Your task to perform on an android device: move a message to another label in the gmail app Image 0: 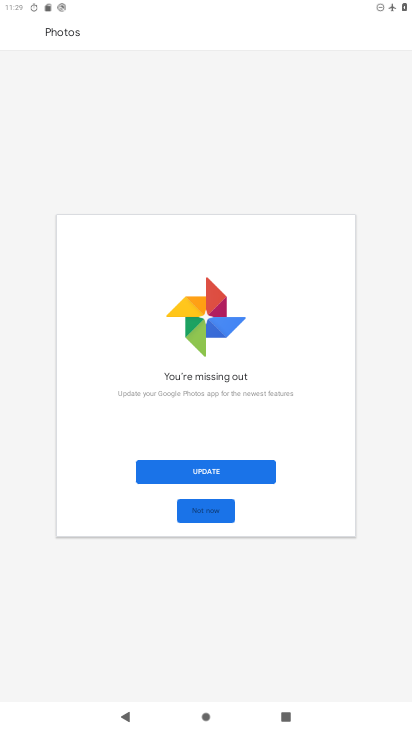
Step 0: press home button
Your task to perform on an android device: move a message to another label in the gmail app Image 1: 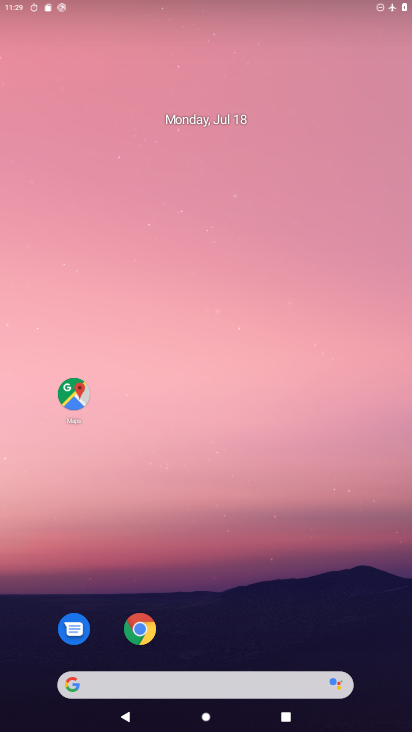
Step 1: drag from (352, 627) to (218, 112)
Your task to perform on an android device: move a message to another label in the gmail app Image 2: 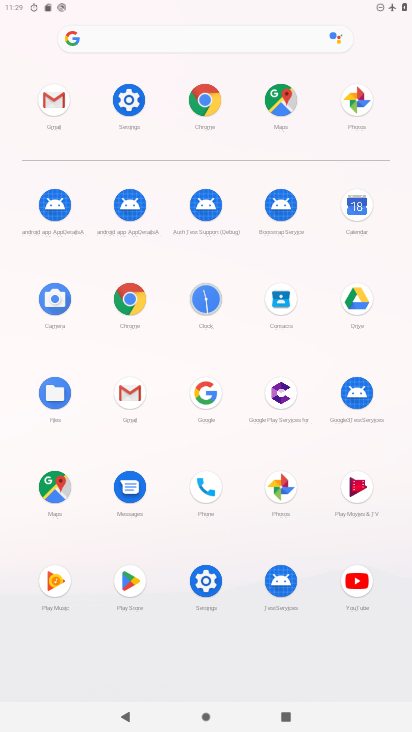
Step 2: click (128, 397)
Your task to perform on an android device: move a message to another label in the gmail app Image 3: 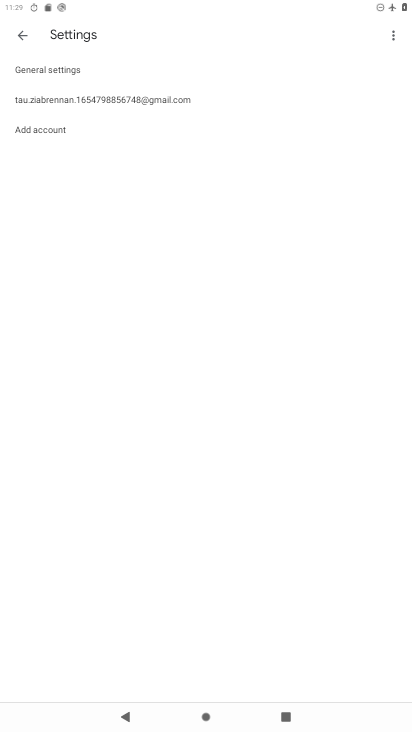
Step 3: click (22, 39)
Your task to perform on an android device: move a message to another label in the gmail app Image 4: 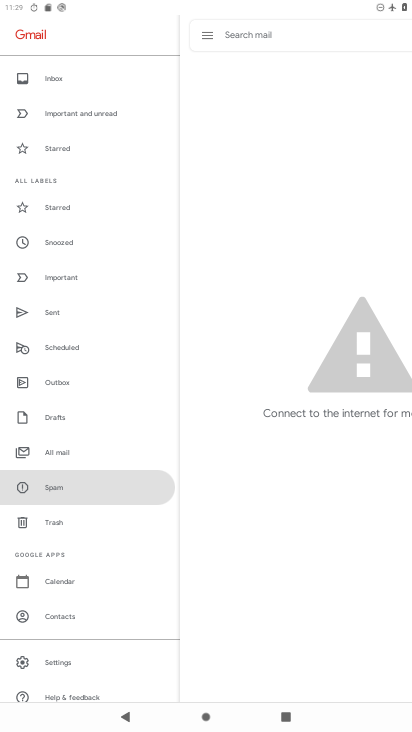
Step 4: click (67, 448)
Your task to perform on an android device: move a message to another label in the gmail app Image 5: 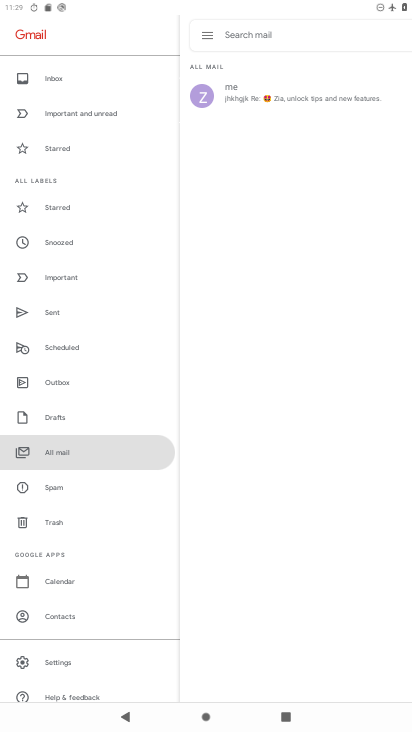
Step 5: click (324, 104)
Your task to perform on an android device: move a message to another label in the gmail app Image 6: 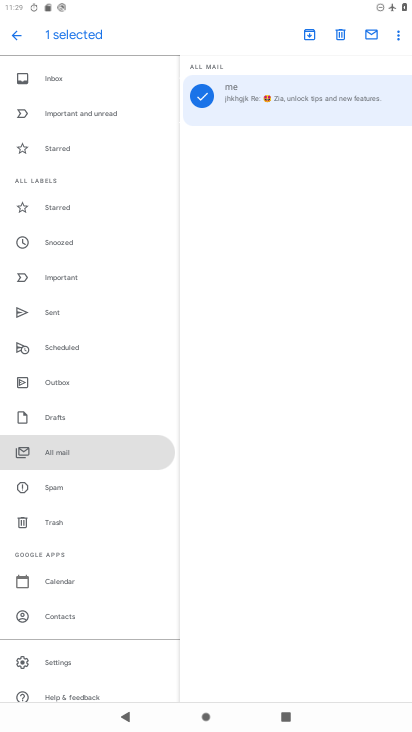
Step 6: click (396, 35)
Your task to perform on an android device: move a message to another label in the gmail app Image 7: 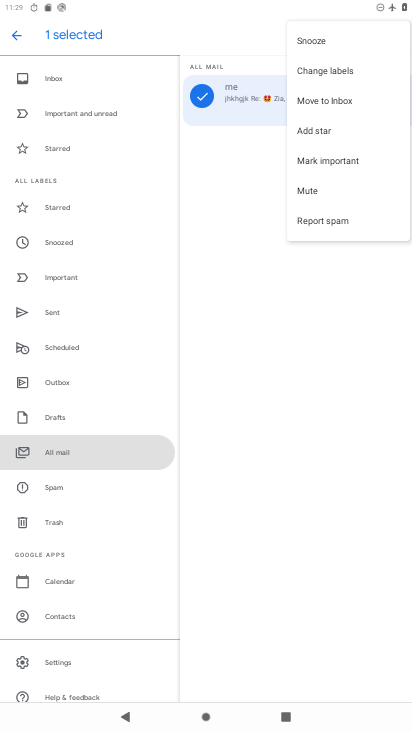
Step 7: click (343, 97)
Your task to perform on an android device: move a message to another label in the gmail app Image 8: 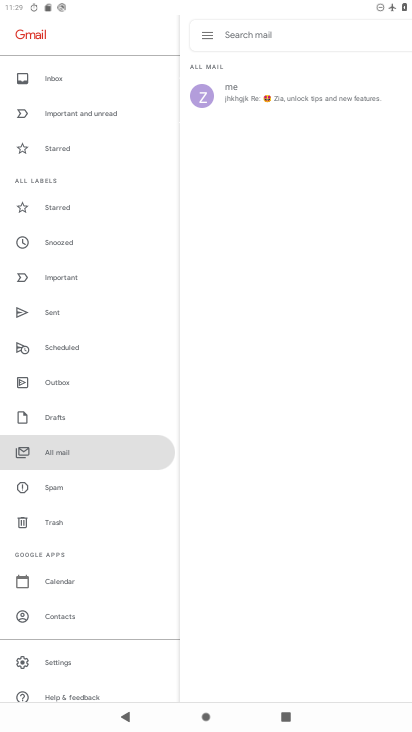
Step 8: task complete